Your task to perform on an android device: Go to location settings Image 0: 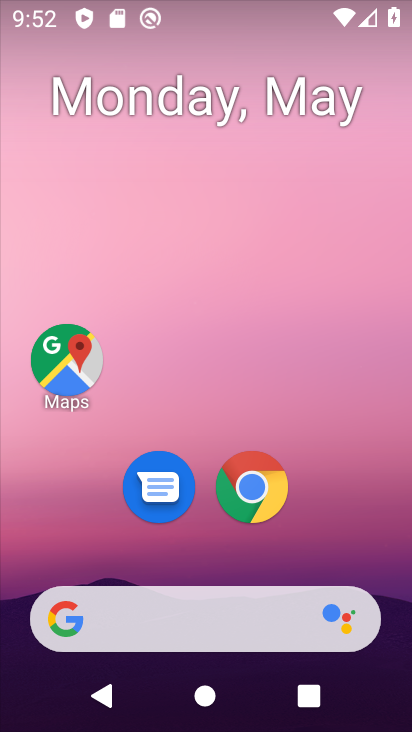
Step 0: drag from (220, 585) to (243, 5)
Your task to perform on an android device: Go to location settings Image 1: 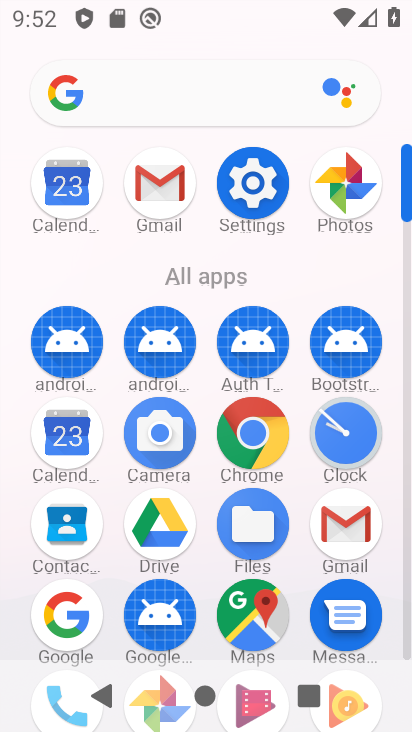
Step 1: click (261, 196)
Your task to perform on an android device: Go to location settings Image 2: 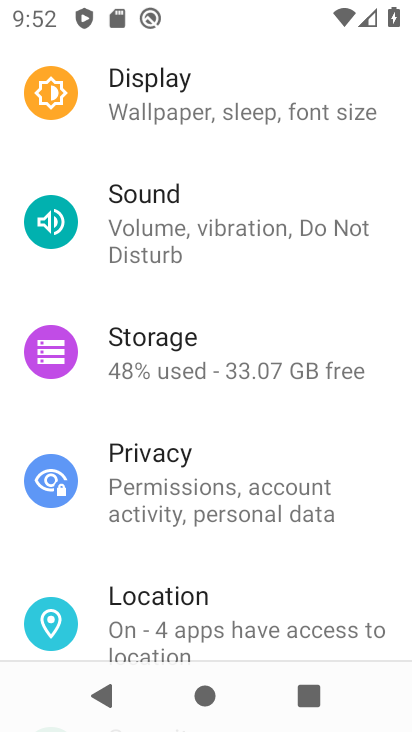
Step 2: click (178, 606)
Your task to perform on an android device: Go to location settings Image 3: 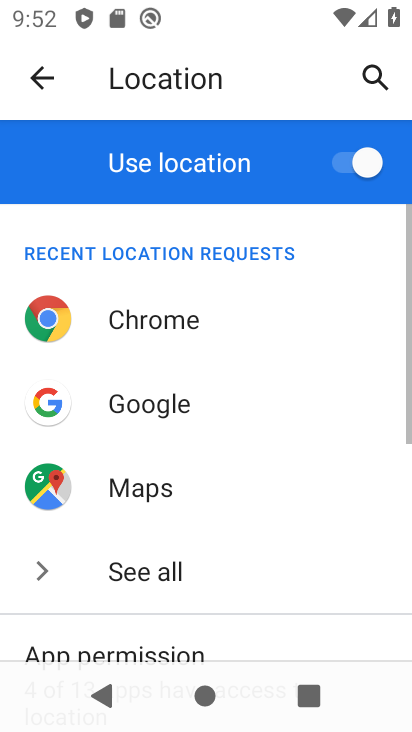
Step 3: task complete